Your task to perform on an android device: Open notification settings Image 0: 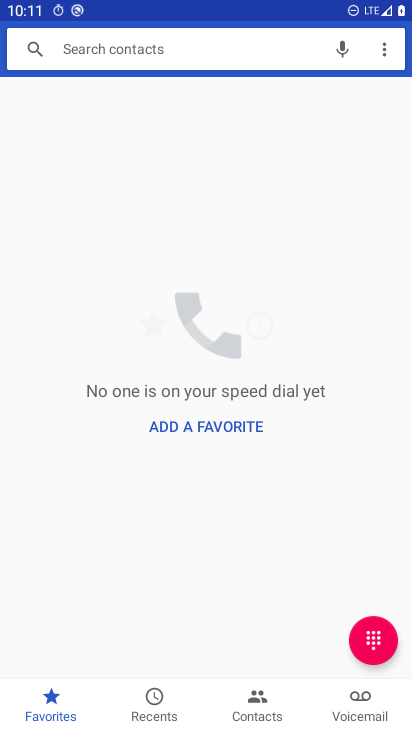
Step 0: press home button
Your task to perform on an android device: Open notification settings Image 1: 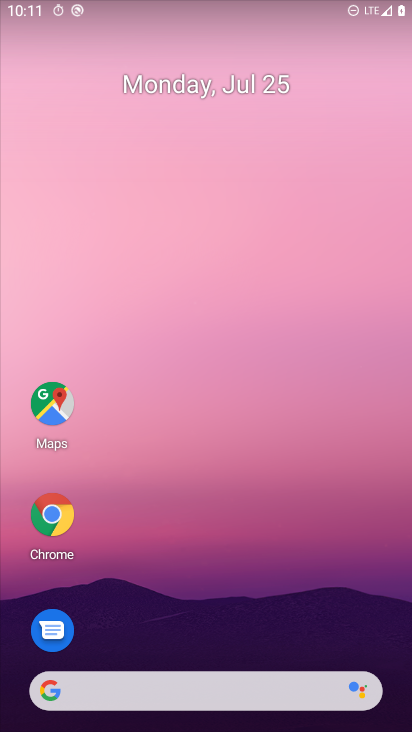
Step 1: drag from (70, 586) to (236, 99)
Your task to perform on an android device: Open notification settings Image 2: 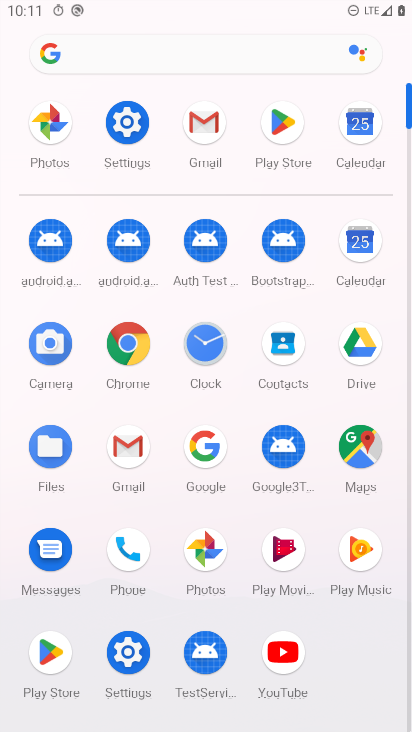
Step 2: click (131, 655)
Your task to perform on an android device: Open notification settings Image 3: 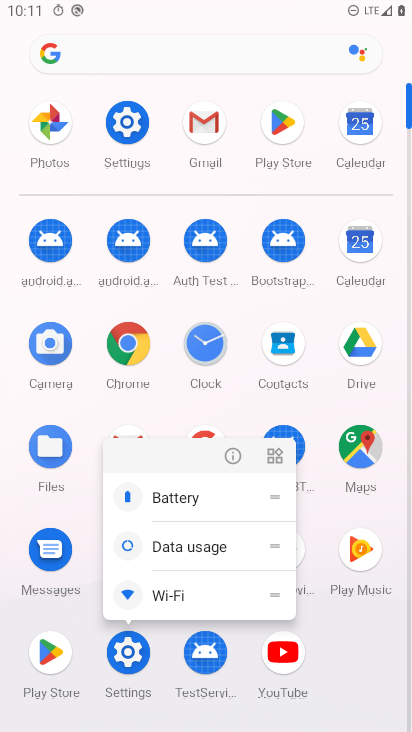
Step 3: click (125, 665)
Your task to perform on an android device: Open notification settings Image 4: 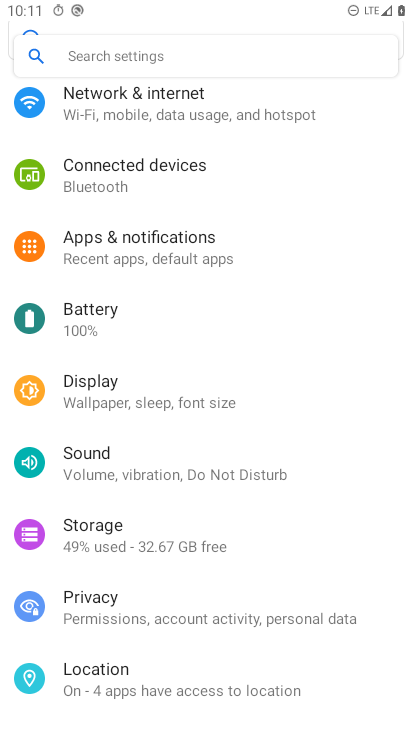
Step 4: click (159, 110)
Your task to perform on an android device: Open notification settings Image 5: 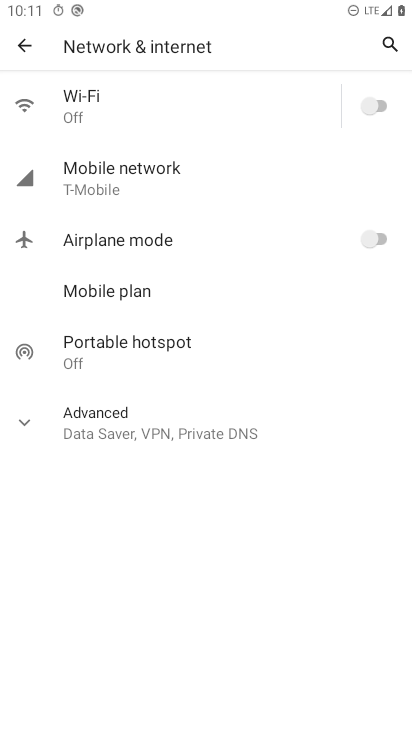
Step 5: click (22, 52)
Your task to perform on an android device: Open notification settings Image 6: 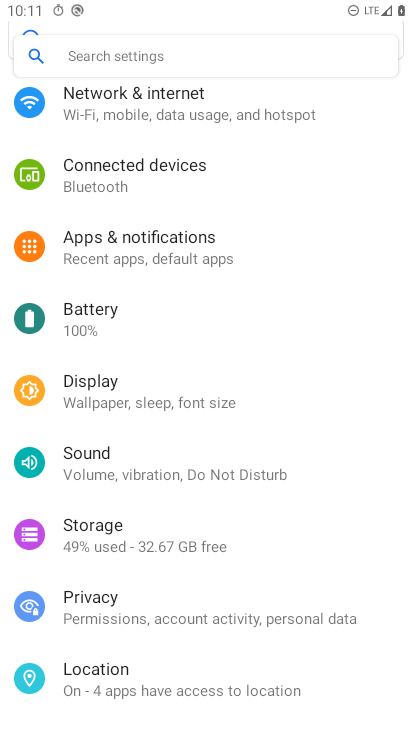
Step 6: click (133, 245)
Your task to perform on an android device: Open notification settings Image 7: 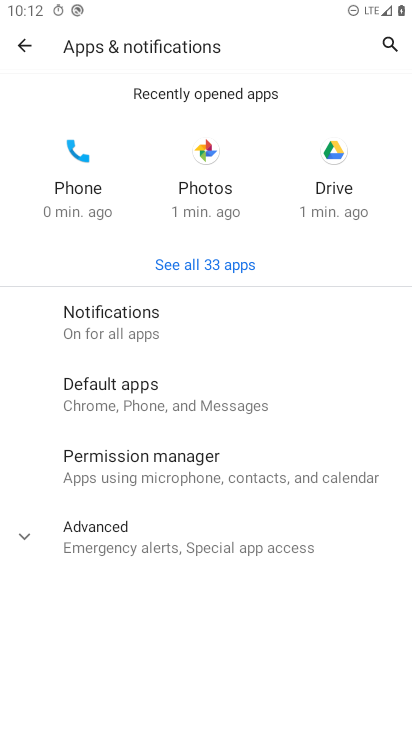
Step 7: task complete